Your task to perform on an android device: Search for sushi restaurants on Maps Image 0: 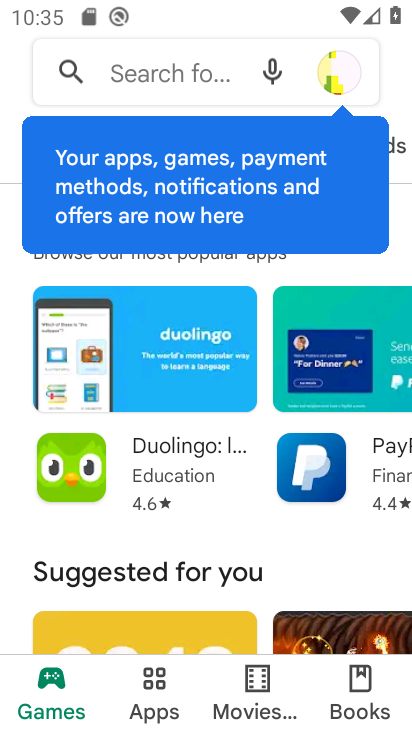
Step 0: press home button
Your task to perform on an android device: Search for sushi restaurants on Maps Image 1: 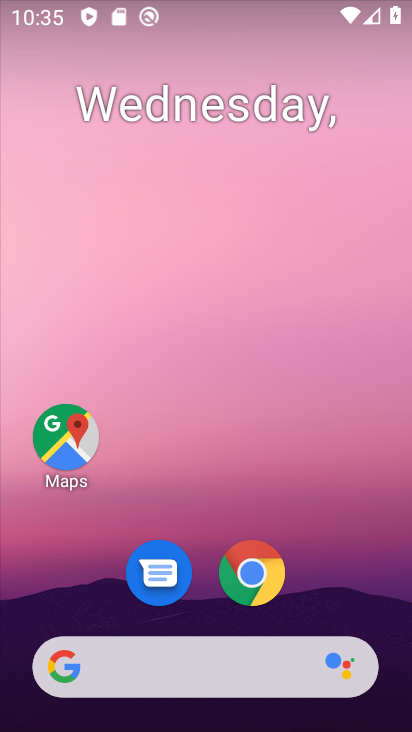
Step 1: click (65, 440)
Your task to perform on an android device: Search for sushi restaurants on Maps Image 2: 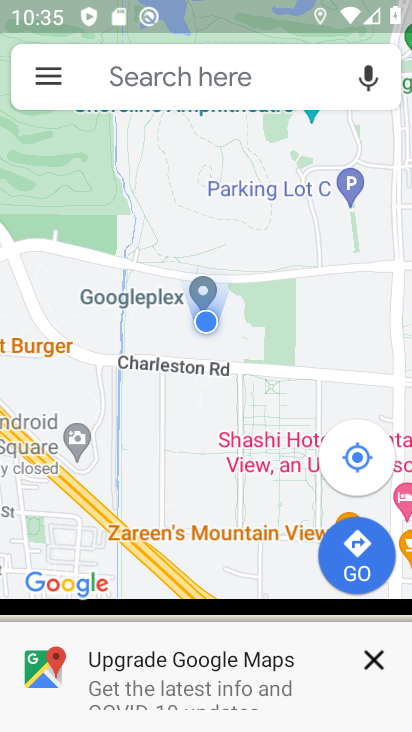
Step 2: click (228, 77)
Your task to perform on an android device: Search for sushi restaurants on Maps Image 3: 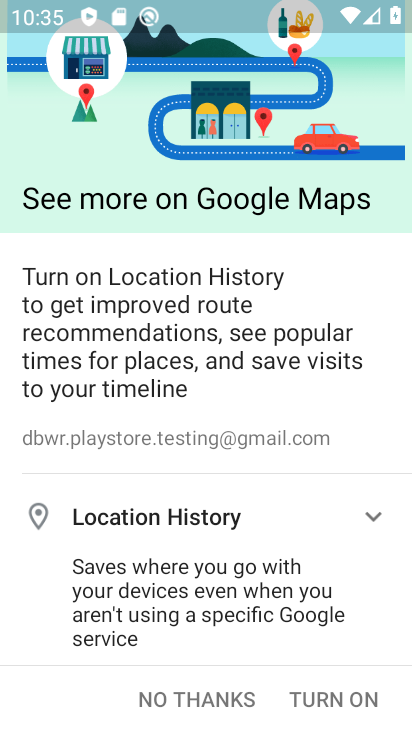
Step 3: click (185, 702)
Your task to perform on an android device: Search for sushi restaurants on Maps Image 4: 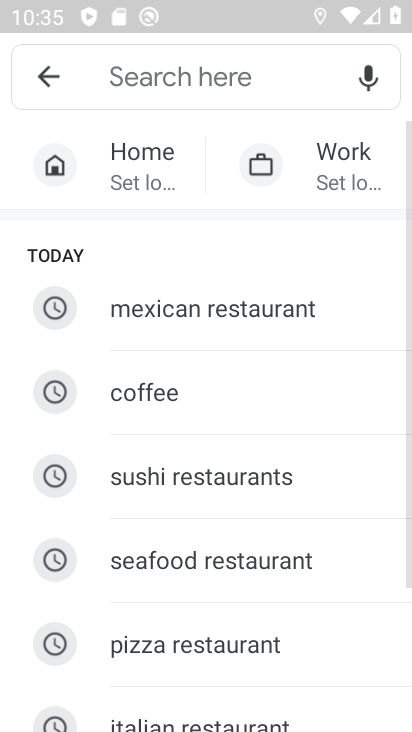
Step 4: click (247, 81)
Your task to perform on an android device: Search for sushi restaurants on Maps Image 5: 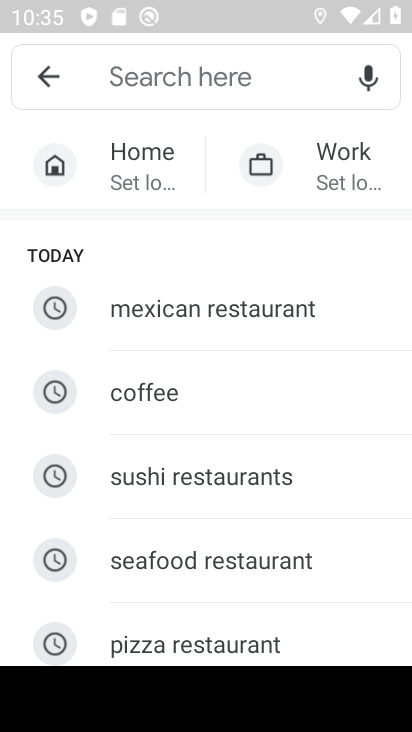
Step 5: type "sushi restaurants"
Your task to perform on an android device: Search for sushi restaurants on Maps Image 6: 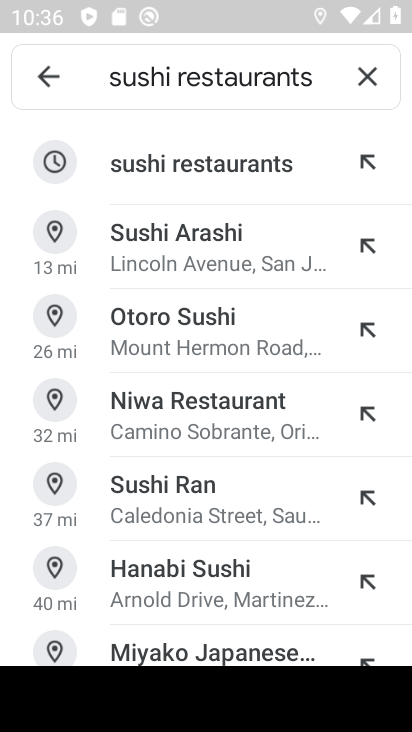
Step 6: click (252, 165)
Your task to perform on an android device: Search for sushi restaurants on Maps Image 7: 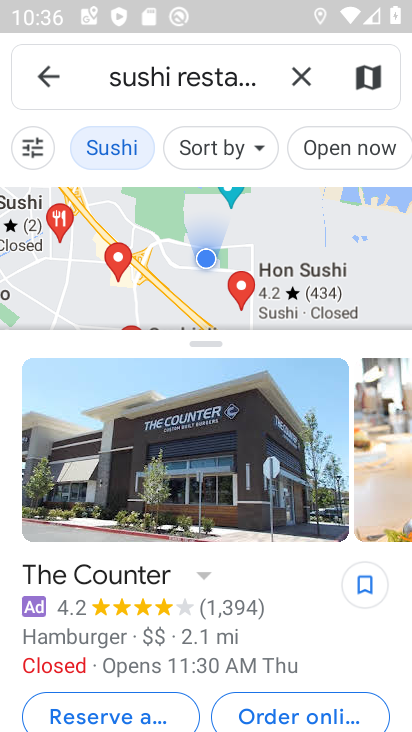
Step 7: task complete